Your task to perform on an android device: Is it going to rain tomorrow? Image 0: 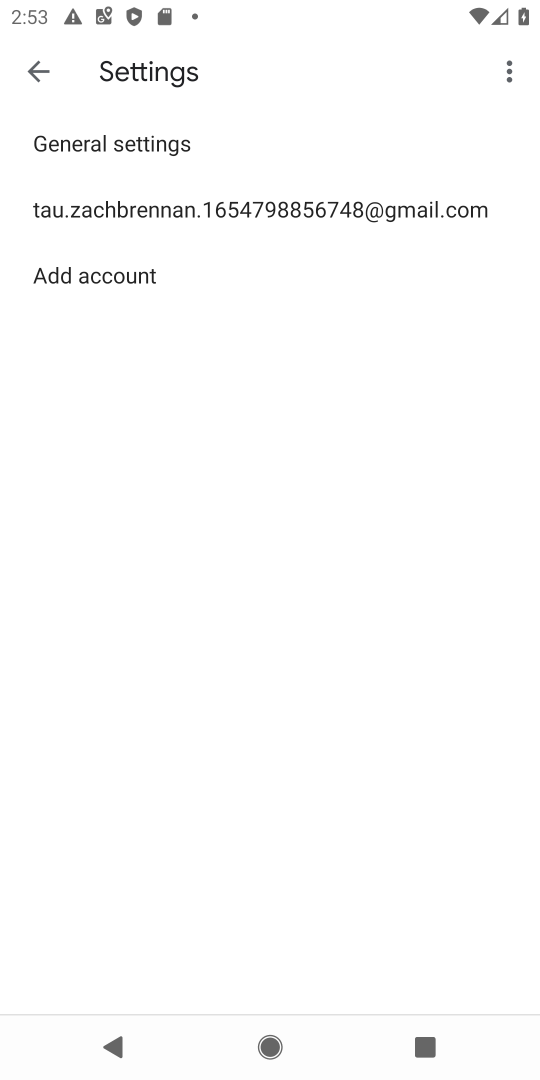
Step 0: press back button
Your task to perform on an android device: Is it going to rain tomorrow? Image 1: 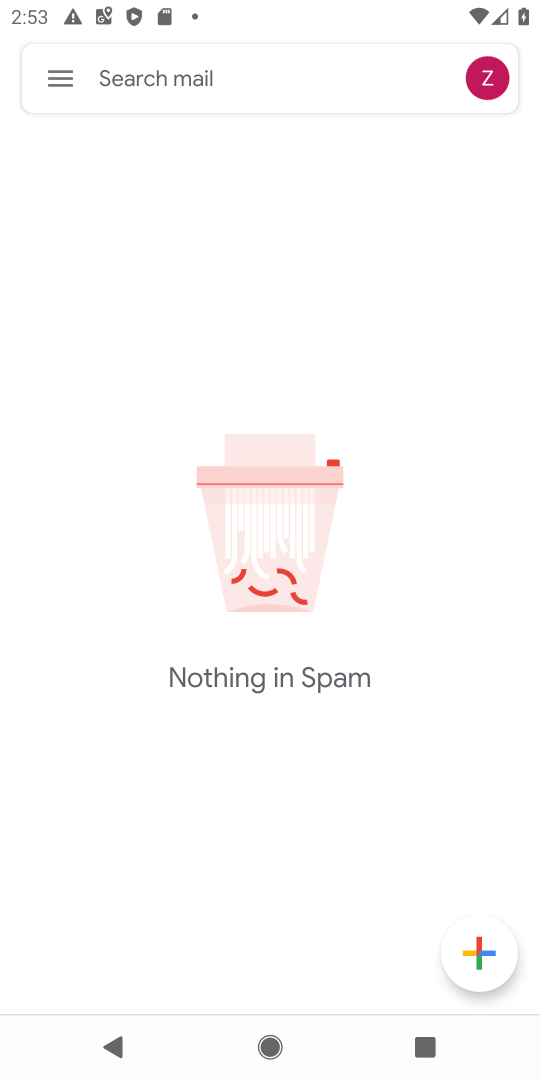
Step 1: press home button
Your task to perform on an android device: Is it going to rain tomorrow? Image 2: 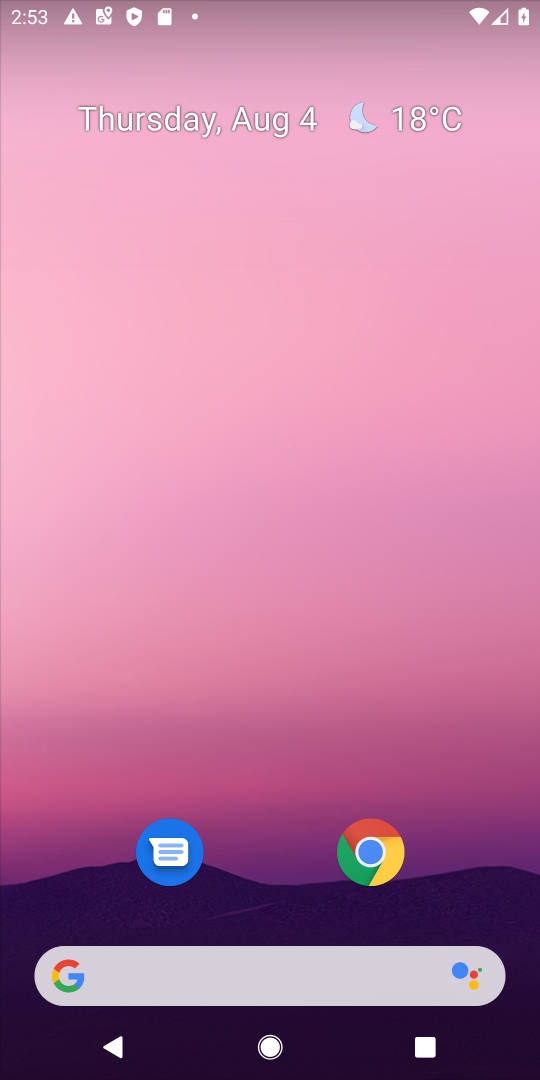
Step 2: drag from (260, 835) to (356, 80)
Your task to perform on an android device: Is it going to rain tomorrow? Image 3: 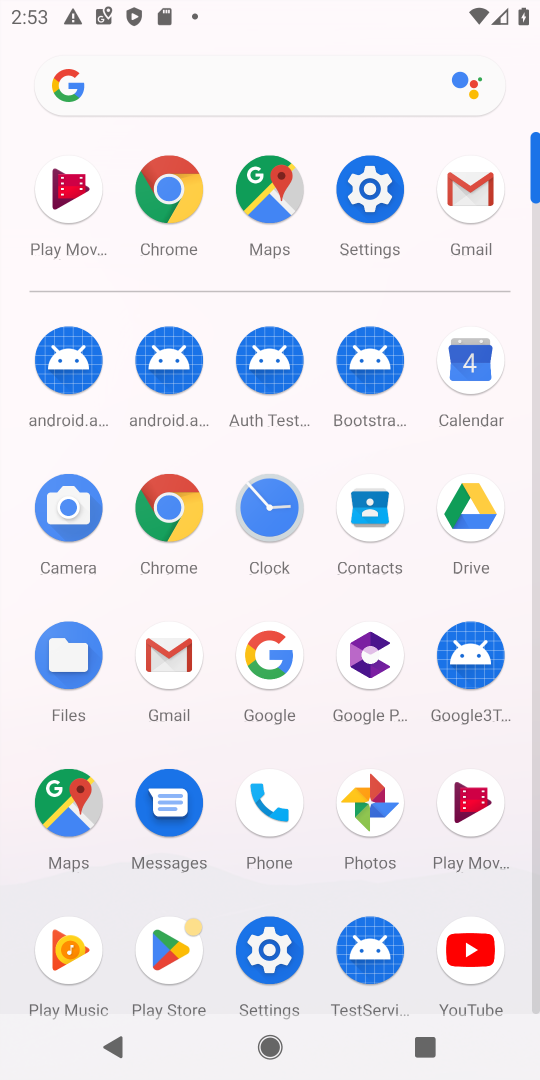
Step 3: click (251, 90)
Your task to perform on an android device: Is it going to rain tomorrow? Image 4: 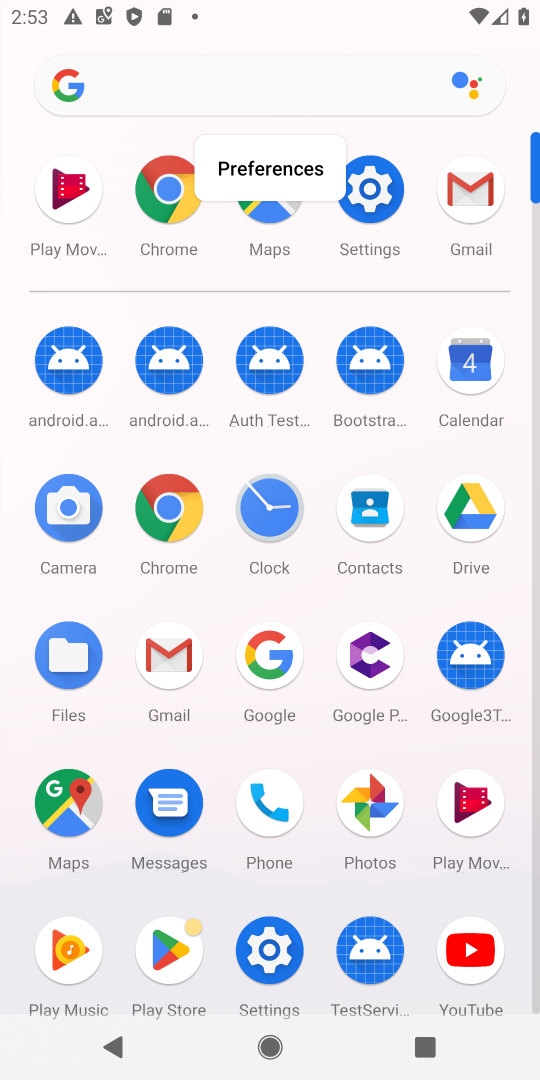
Step 4: click (293, 64)
Your task to perform on an android device: Is it going to rain tomorrow? Image 5: 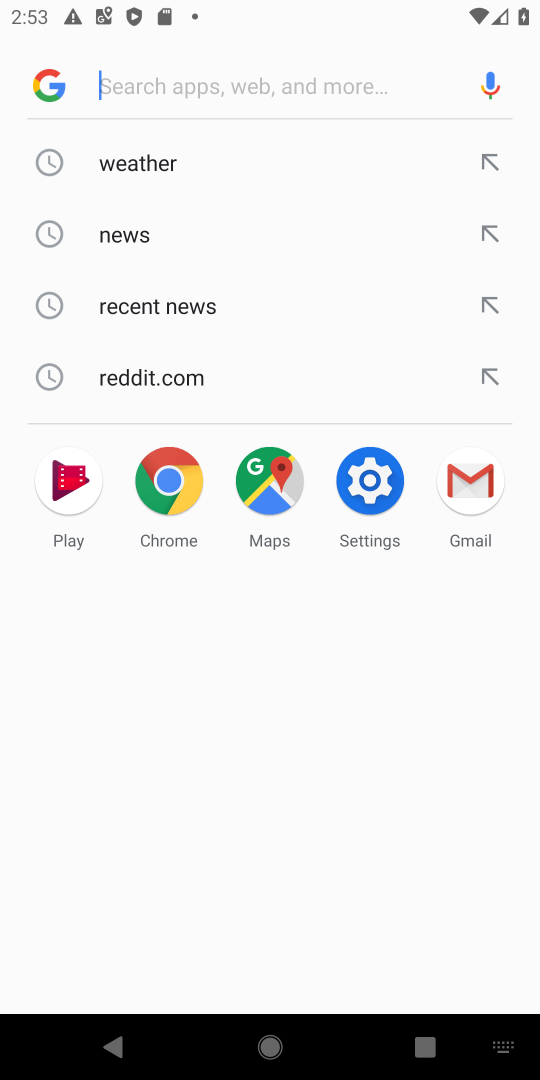
Step 5: click (203, 154)
Your task to perform on an android device: Is it going to rain tomorrow? Image 6: 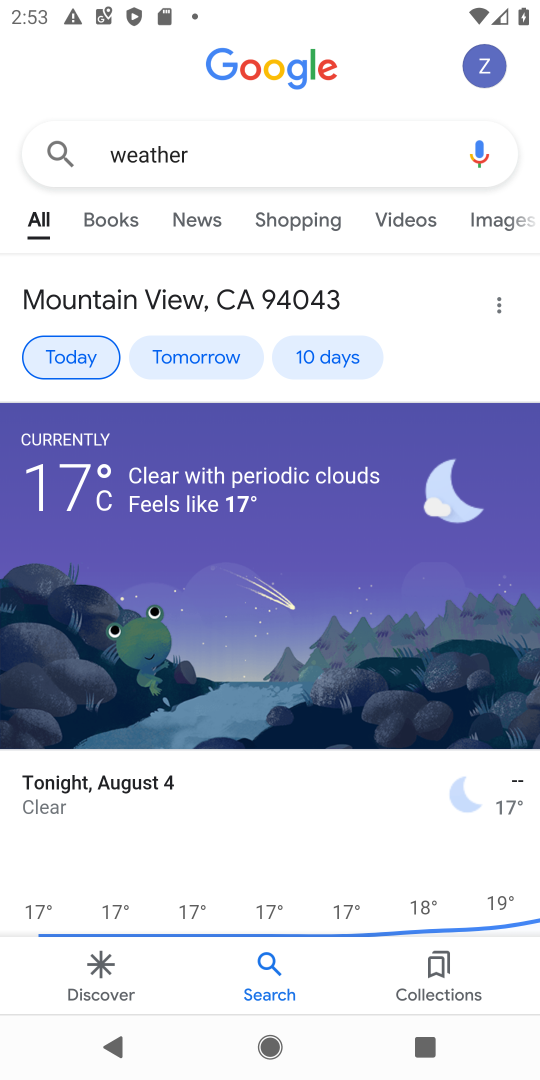
Step 6: click (177, 363)
Your task to perform on an android device: Is it going to rain tomorrow? Image 7: 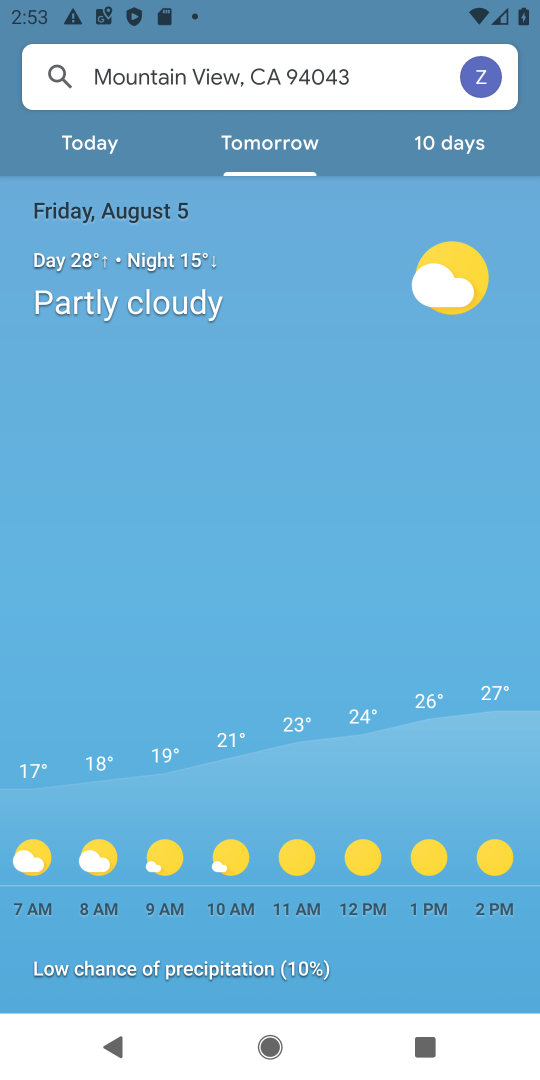
Step 7: task complete